Your task to perform on an android device: Open notification settings Image 0: 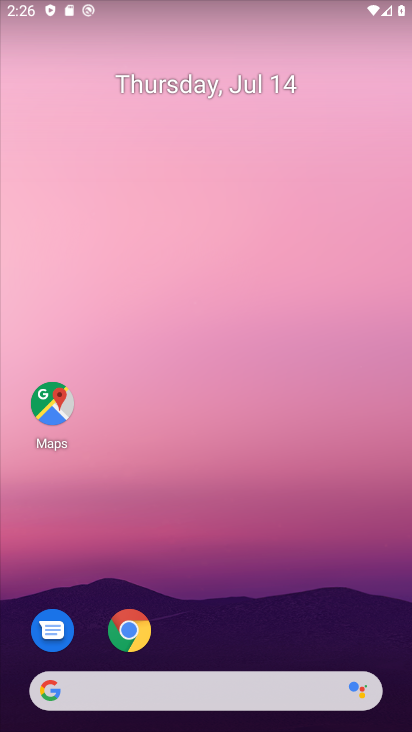
Step 0: press home button
Your task to perform on an android device: Open notification settings Image 1: 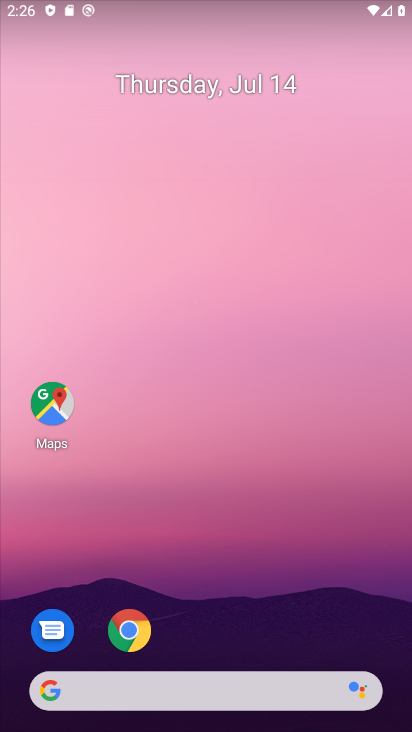
Step 1: drag from (208, 650) to (244, 58)
Your task to perform on an android device: Open notification settings Image 2: 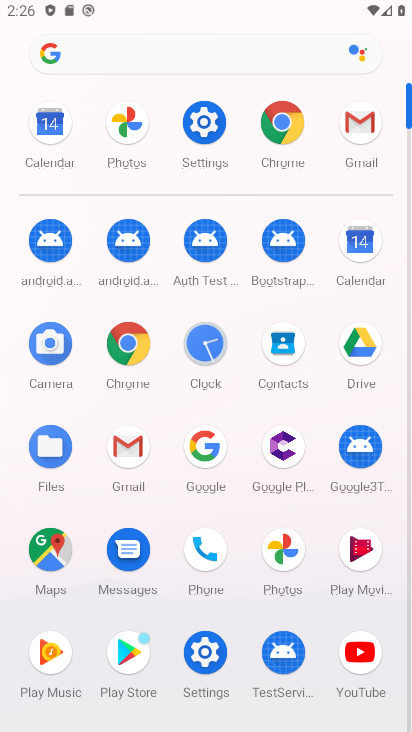
Step 2: click (201, 118)
Your task to perform on an android device: Open notification settings Image 3: 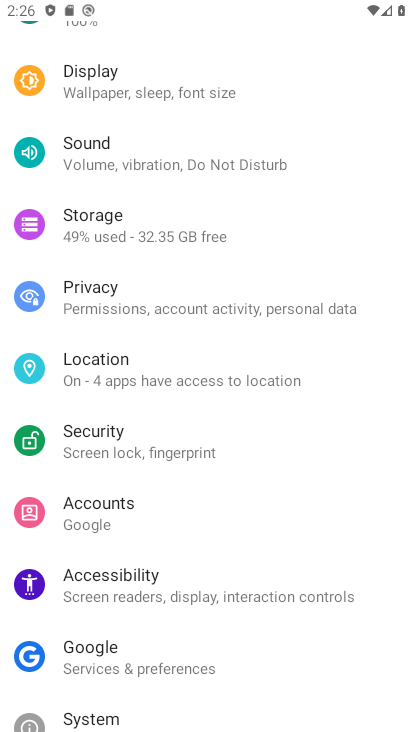
Step 3: drag from (129, 112) to (137, 478)
Your task to perform on an android device: Open notification settings Image 4: 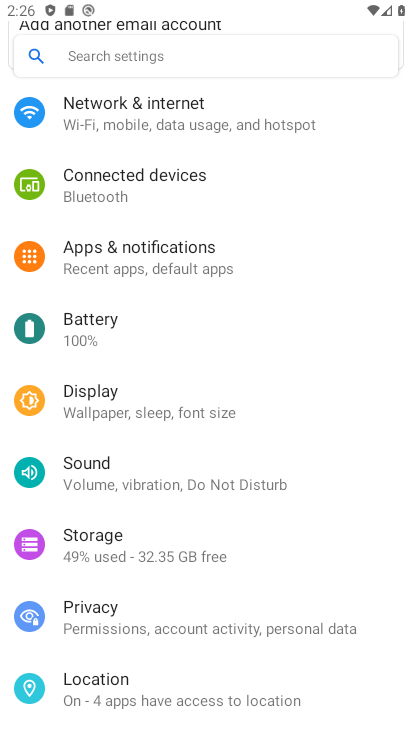
Step 4: click (200, 263)
Your task to perform on an android device: Open notification settings Image 5: 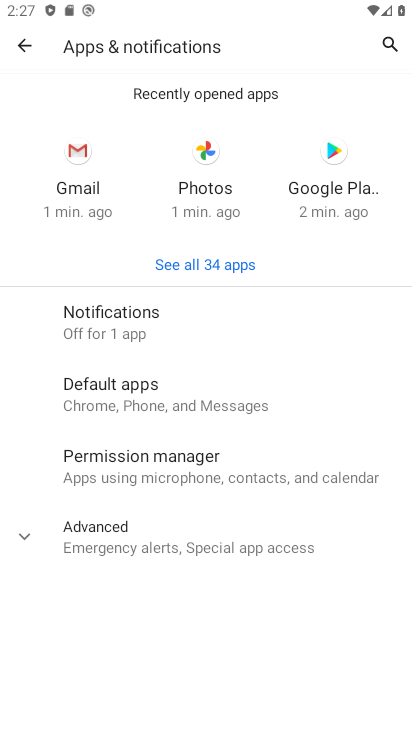
Step 5: click (164, 321)
Your task to perform on an android device: Open notification settings Image 6: 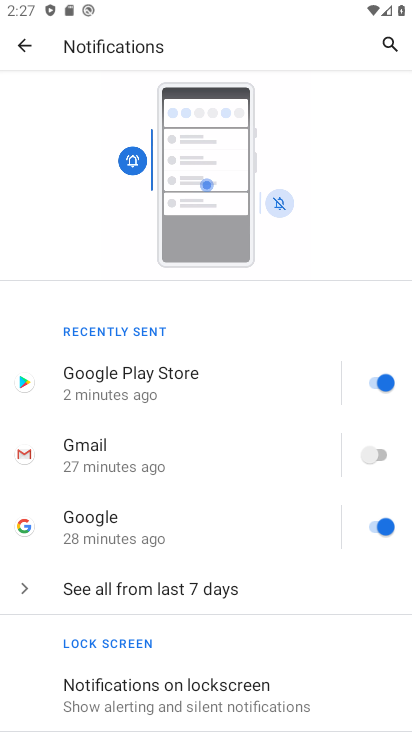
Step 6: drag from (195, 385) to (209, 287)
Your task to perform on an android device: Open notification settings Image 7: 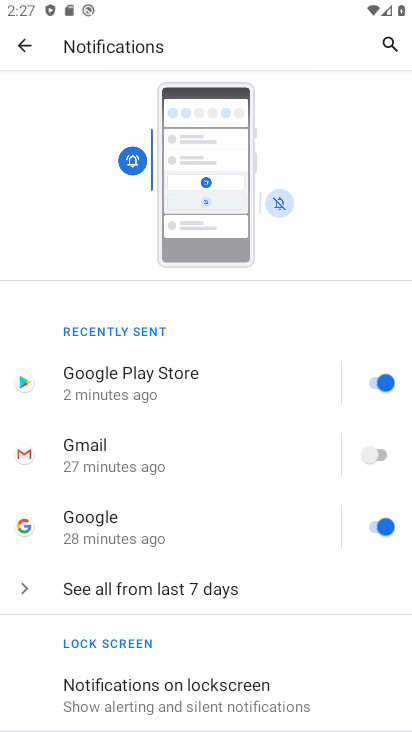
Step 7: drag from (169, 652) to (177, 206)
Your task to perform on an android device: Open notification settings Image 8: 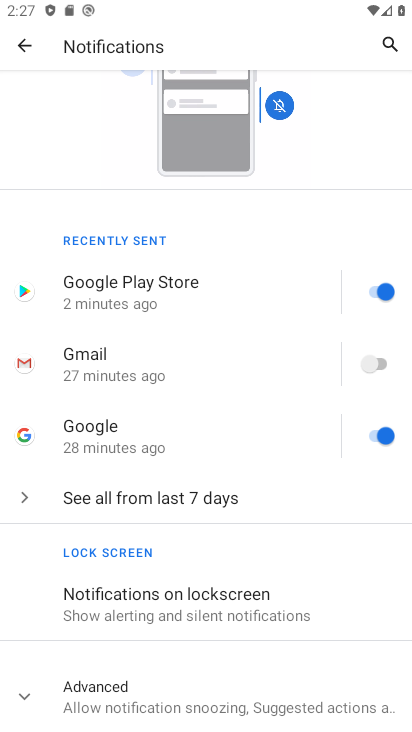
Step 8: click (28, 690)
Your task to perform on an android device: Open notification settings Image 9: 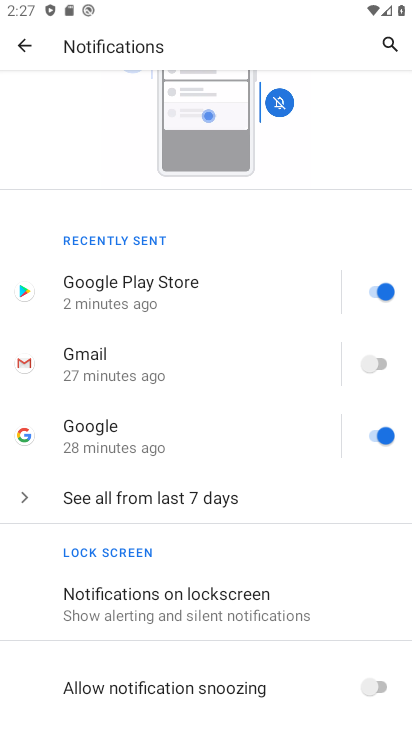
Step 9: task complete